Your task to perform on an android device: turn notification dots off Image 0: 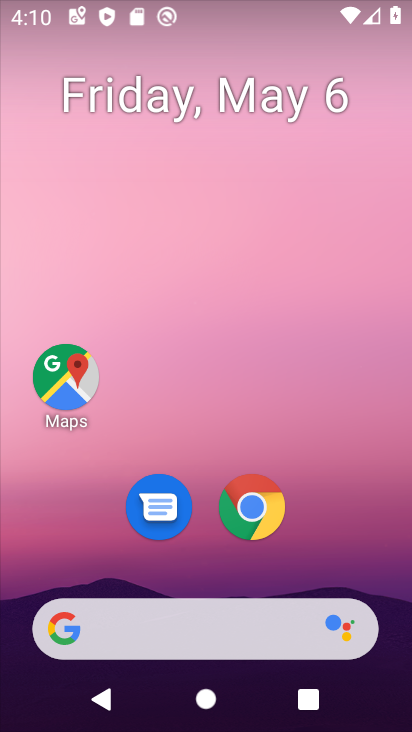
Step 0: drag from (335, 538) to (309, 69)
Your task to perform on an android device: turn notification dots off Image 1: 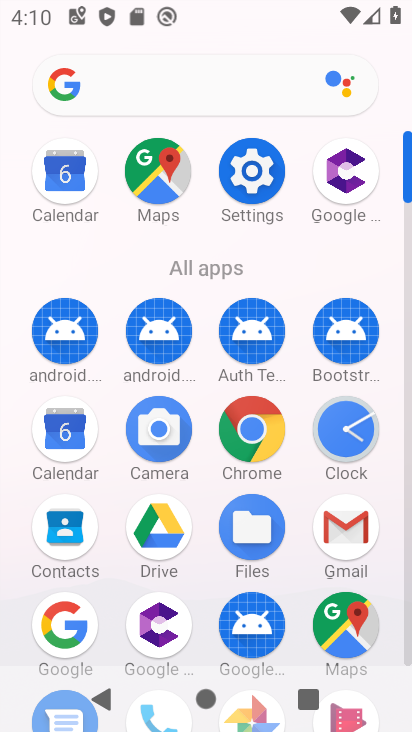
Step 1: click (247, 179)
Your task to perform on an android device: turn notification dots off Image 2: 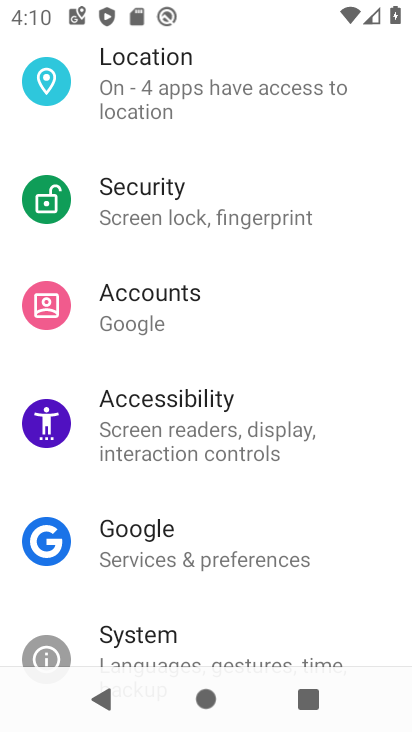
Step 2: drag from (269, 157) to (314, 722)
Your task to perform on an android device: turn notification dots off Image 3: 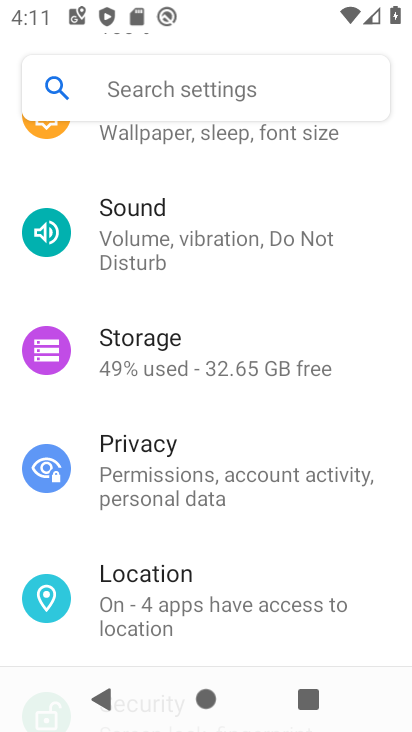
Step 3: drag from (257, 180) to (383, 631)
Your task to perform on an android device: turn notification dots off Image 4: 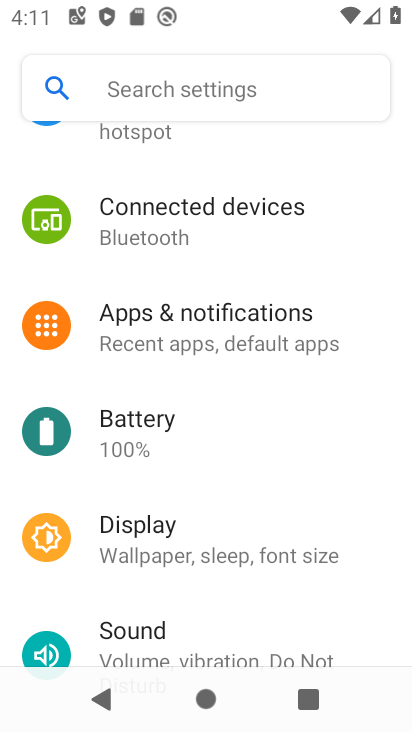
Step 4: click (231, 315)
Your task to perform on an android device: turn notification dots off Image 5: 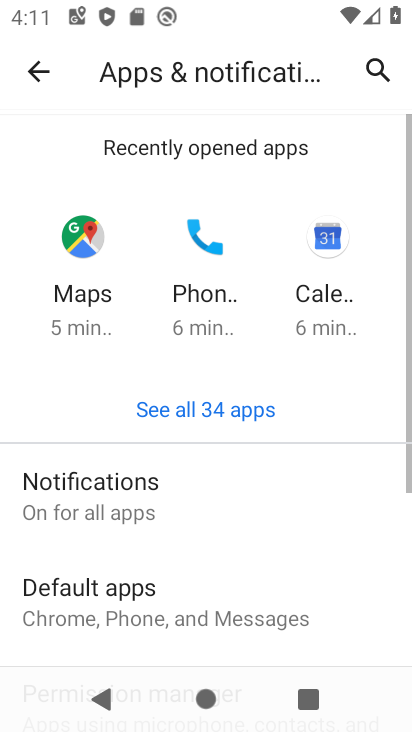
Step 5: drag from (201, 526) to (206, 166)
Your task to perform on an android device: turn notification dots off Image 6: 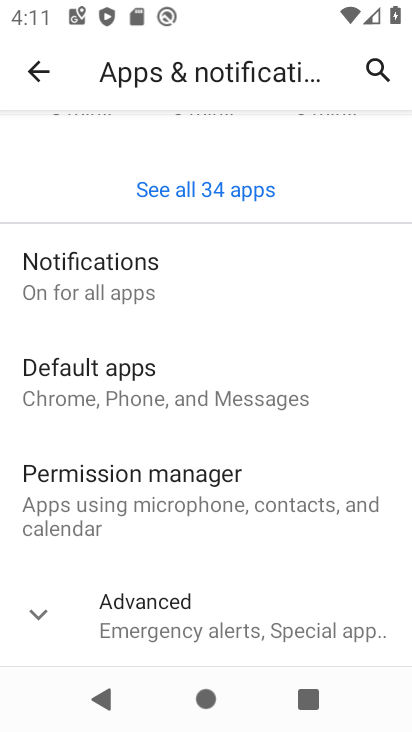
Step 6: click (114, 252)
Your task to perform on an android device: turn notification dots off Image 7: 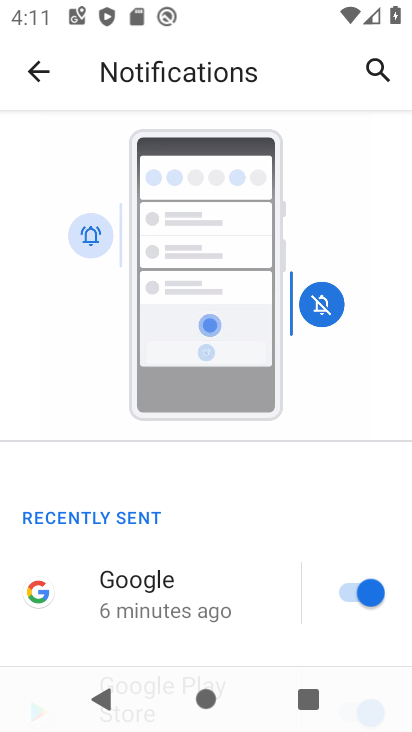
Step 7: drag from (241, 511) to (214, 102)
Your task to perform on an android device: turn notification dots off Image 8: 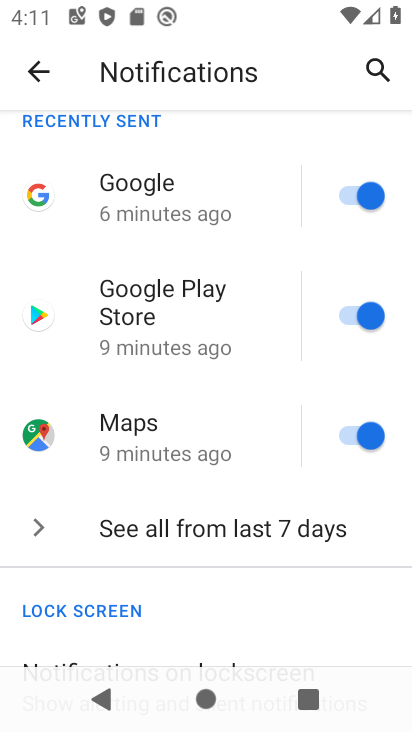
Step 8: drag from (254, 466) to (240, 142)
Your task to perform on an android device: turn notification dots off Image 9: 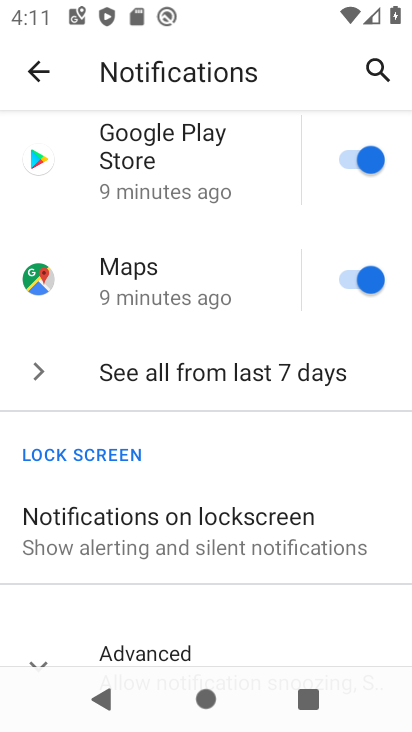
Step 9: drag from (225, 555) to (206, 330)
Your task to perform on an android device: turn notification dots off Image 10: 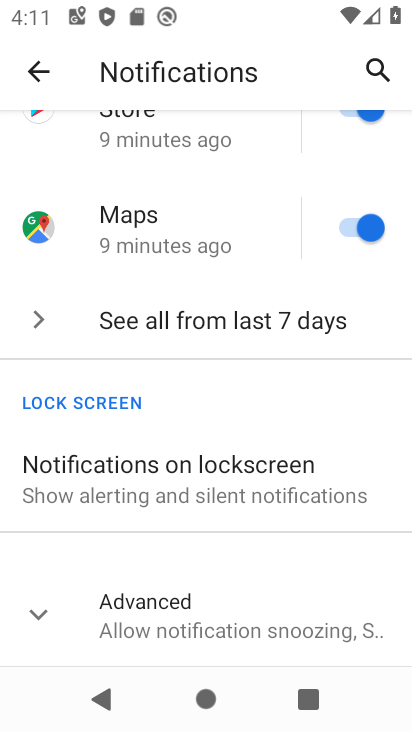
Step 10: click (36, 608)
Your task to perform on an android device: turn notification dots off Image 11: 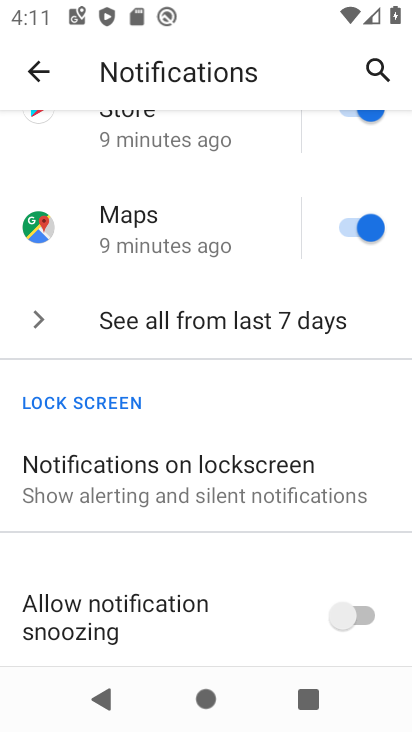
Step 11: drag from (241, 542) to (243, 169)
Your task to perform on an android device: turn notification dots off Image 12: 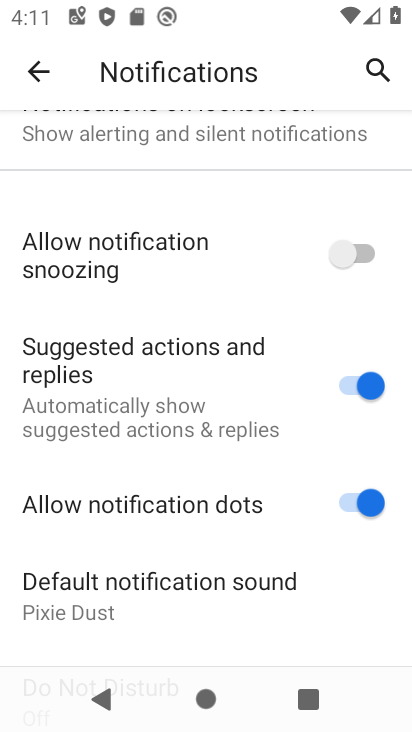
Step 12: click (378, 505)
Your task to perform on an android device: turn notification dots off Image 13: 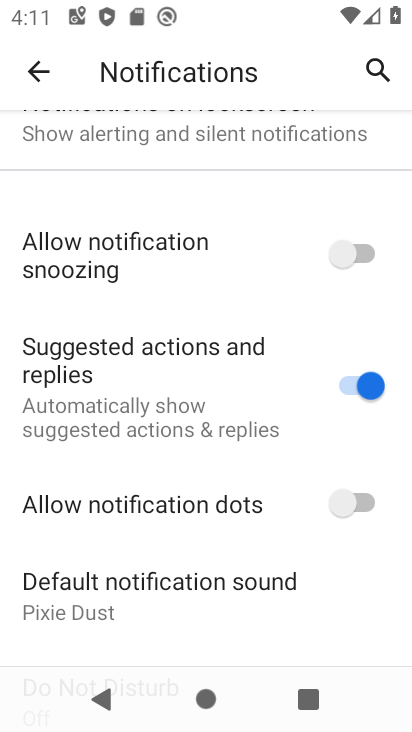
Step 13: task complete